Your task to perform on an android device: Open Android settings Image 0: 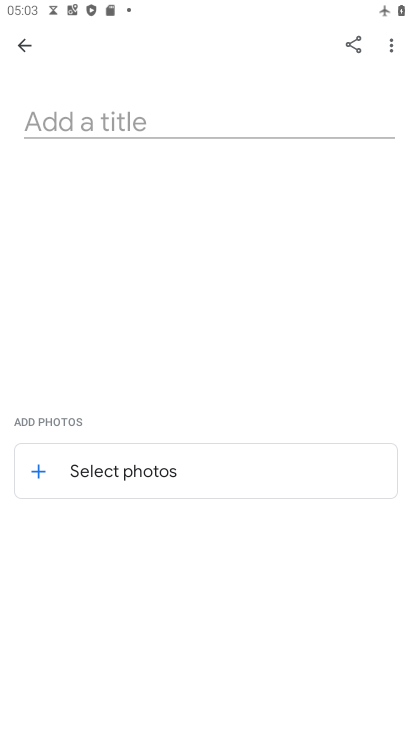
Step 0: press home button
Your task to perform on an android device: Open Android settings Image 1: 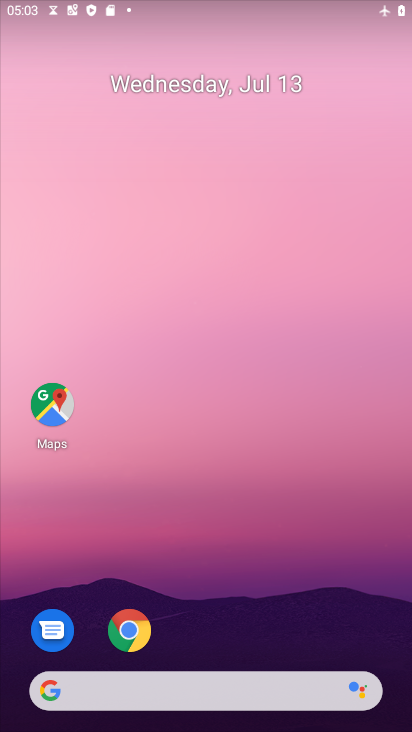
Step 1: drag from (246, 641) to (309, 129)
Your task to perform on an android device: Open Android settings Image 2: 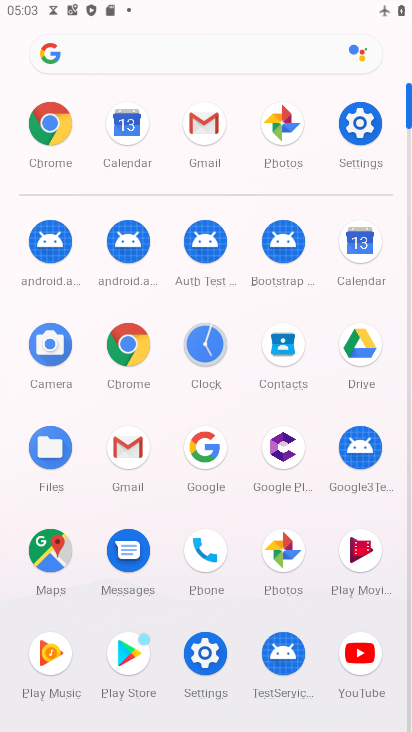
Step 2: click (353, 121)
Your task to perform on an android device: Open Android settings Image 3: 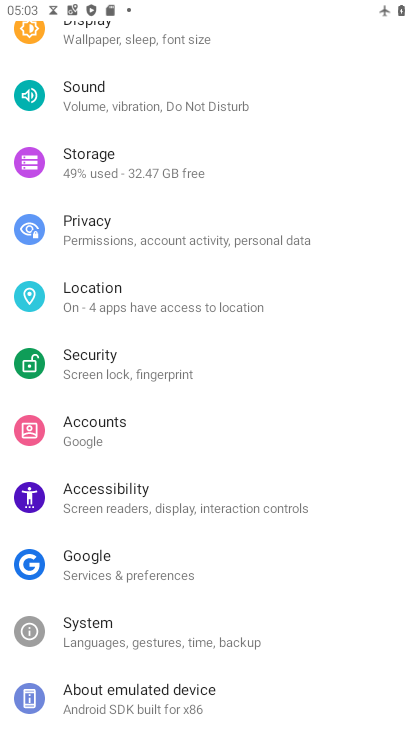
Step 3: drag from (217, 636) to (248, 335)
Your task to perform on an android device: Open Android settings Image 4: 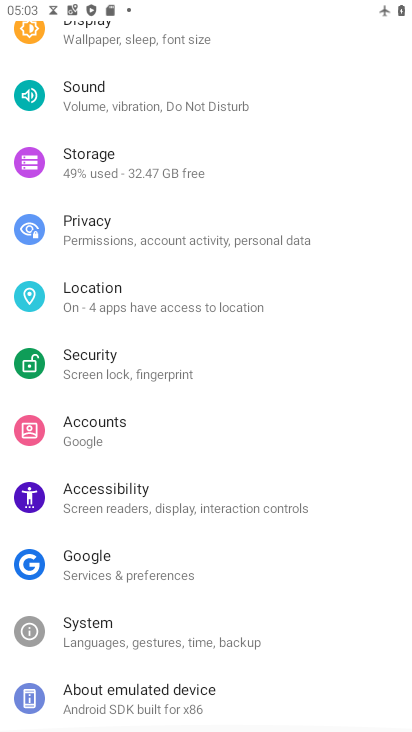
Step 4: click (215, 710)
Your task to perform on an android device: Open Android settings Image 5: 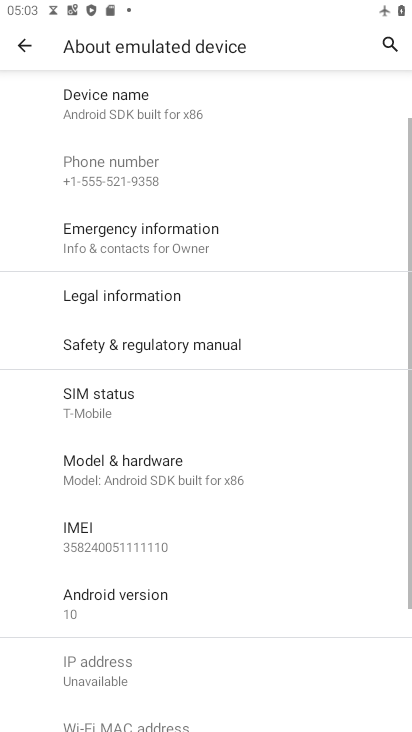
Step 5: task complete